Your task to perform on an android device: open chrome privacy settings Image 0: 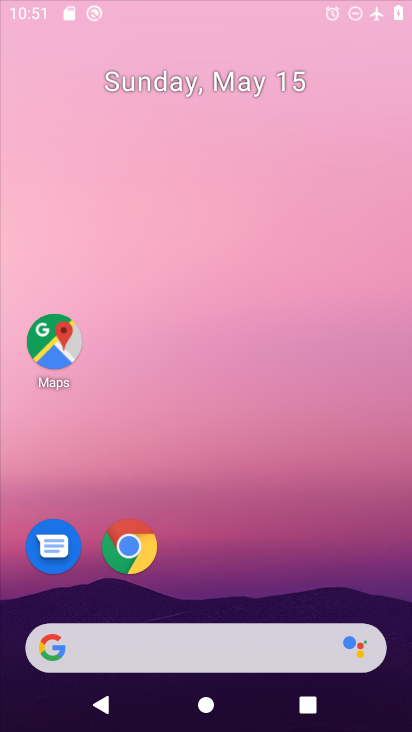
Step 0: click (128, 542)
Your task to perform on an android device: open chrome privacy settings Image 1: 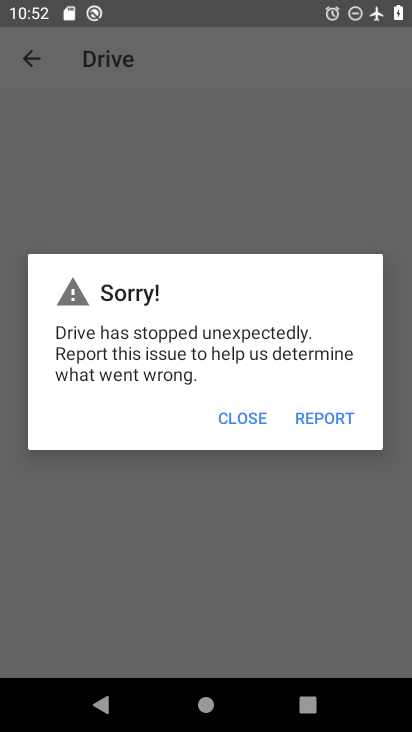
Step 1: press home button
Your task to perform on an android device: open chrome privacy settings Image 2: 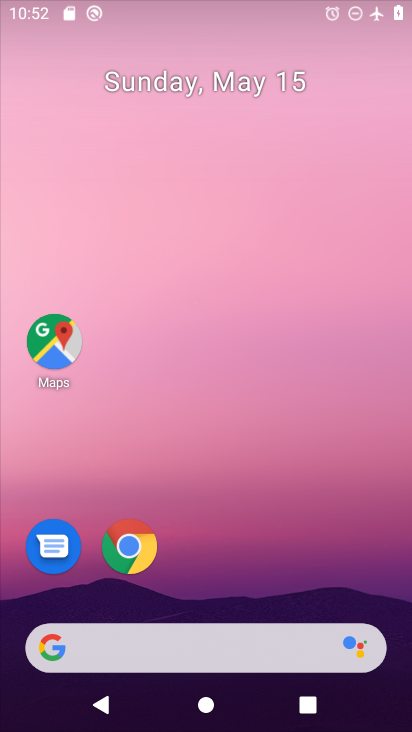
Step 2: drag from (242, 547) to (287, 131)
Your task to perform on an android device: open chrome privacy settings Image 3: 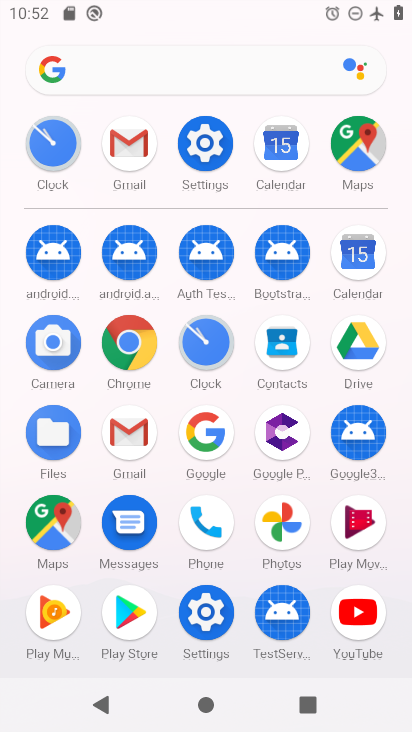
Step 3: click (127, 346)
Your task to perform on an android device: open chrome privacy settings Image 4: 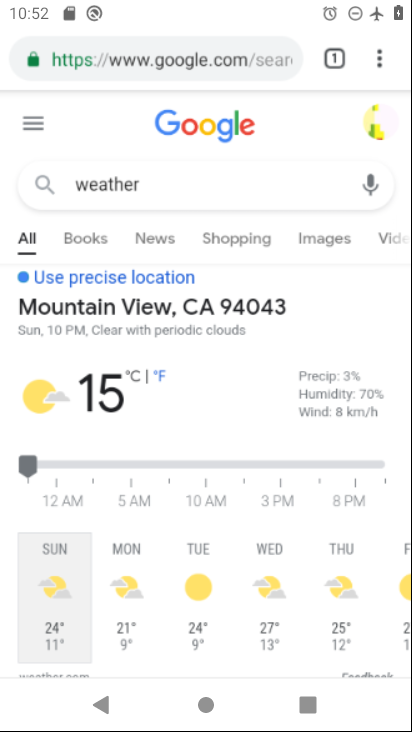
Step 4: drag from (382, 58) to (254, 560)
Your task to perform on an android device: open chrome privacy settings Image 5: 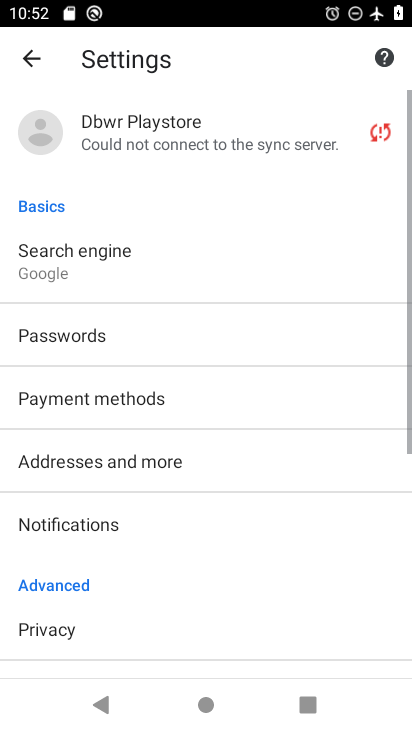
Step 5: drag from (256, 549) to (320, 31)
Your task to perform on an android device: open chrome privacy settings Image 6: 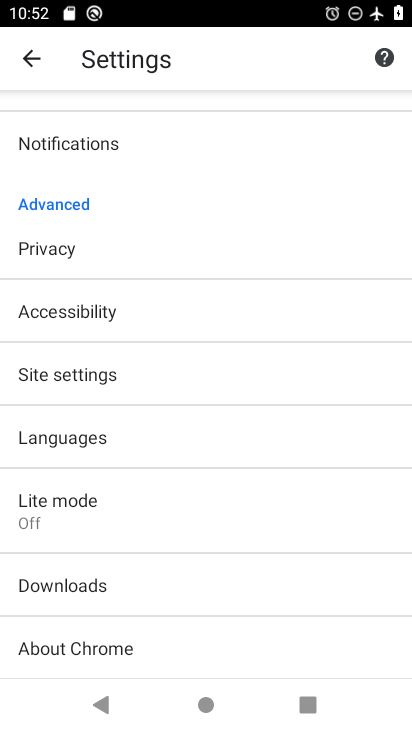
Step 6: click (47, 252)
Your task to perform on an android device: open chrome privacy settings Image 7: 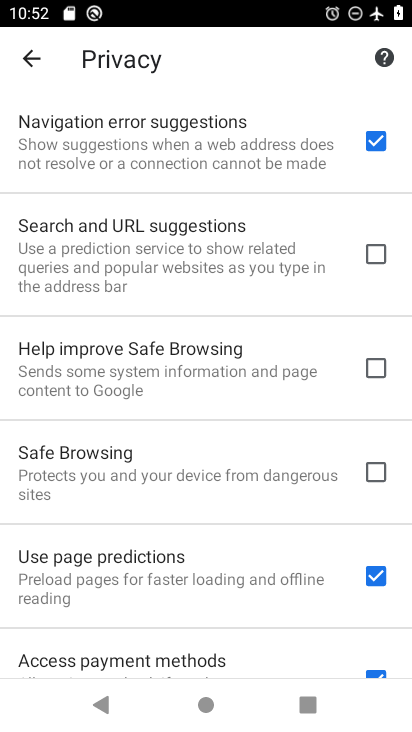
Step 7: task complete